Your task to perform on an android device: see sites visited before in the chrome app Image 0: 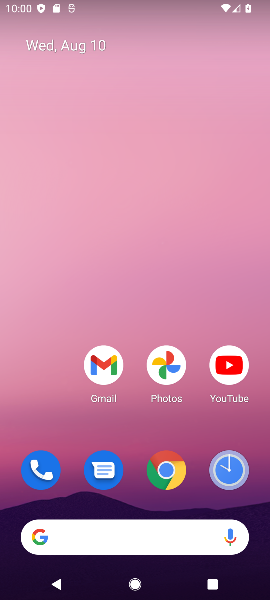
Step 0: click (167, 472)
Your task to perform on an android device: see sites visited before in the chrome app Image 1: 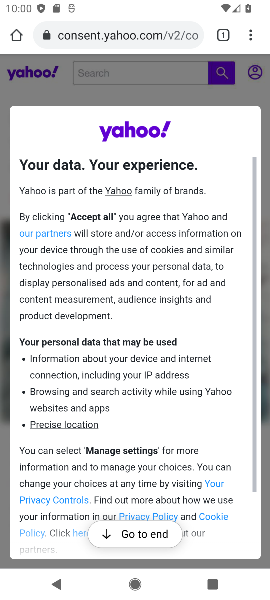
Step 1: click (260, 28)
Your task to perform on an android device: see sites visited before in the chrome app Image 2: 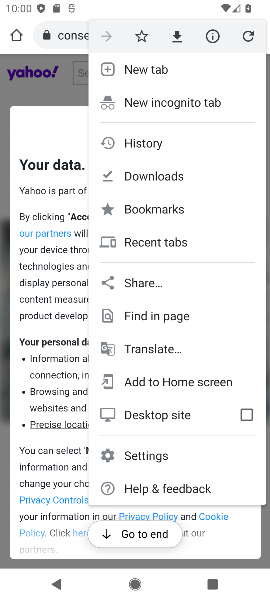
Step 2: click (191, 252)
Your task to perform on an android device: see sites visited before in the chrome app Image 3: 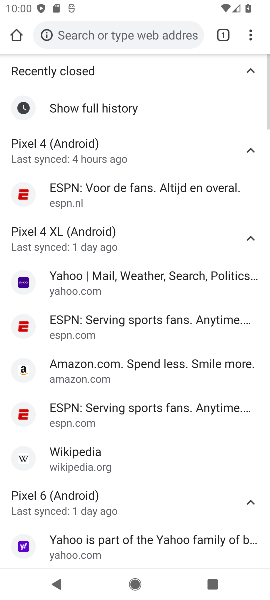
Step 3: task complete